Your task to perform on an android device: open wifi settings Image 0: 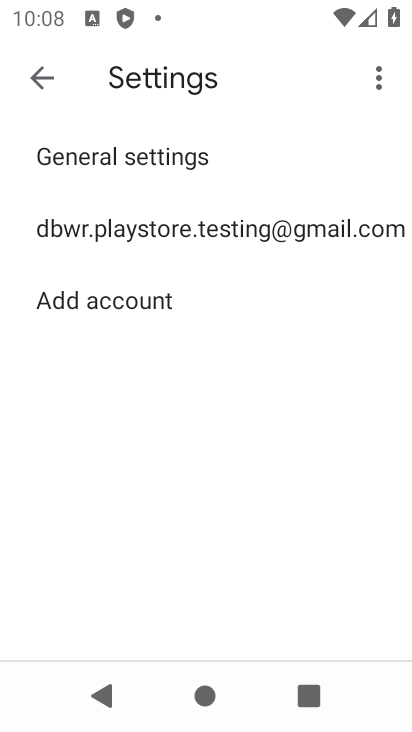
Step 0: press home button
Your task to perform on an android device: open wifi settings Image 1: 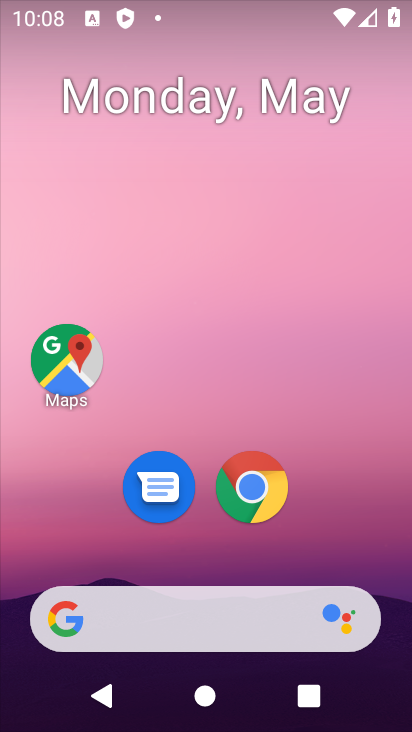
Step 1: drag from (229, 515) to (260, 139)
Your task to perform on an android device: open wifi settings Image 2: 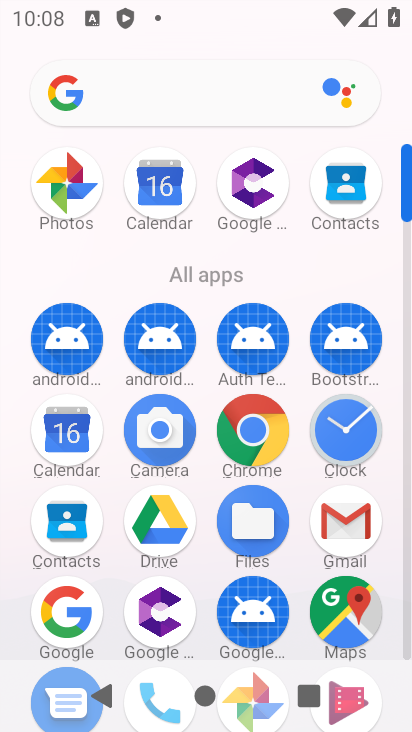
Step 2: drag from (173, 463) to (215, 179)
Your task to perform on an android device: open wifi settings Image 3: 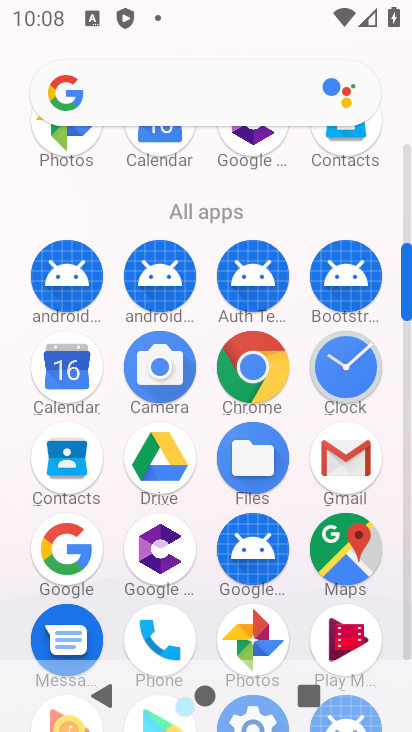
Step 3: drag from (174, 545) to (206, 113)
Your task to perform on an android device: open wifi settings Image 4: 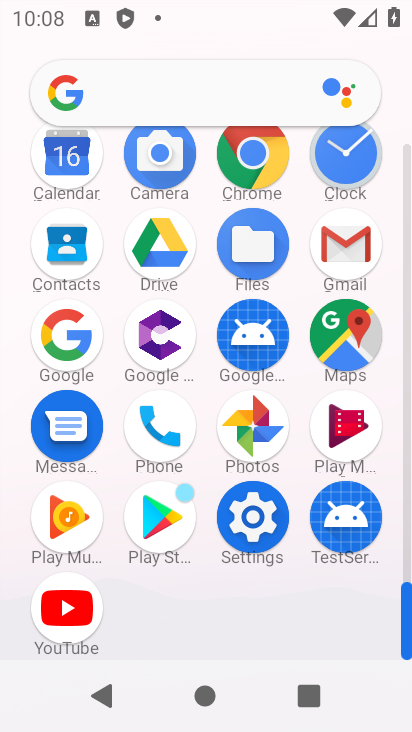
Step 4: click (254, 528)
Your task to perform on an android device: open wifi settings Image 5: 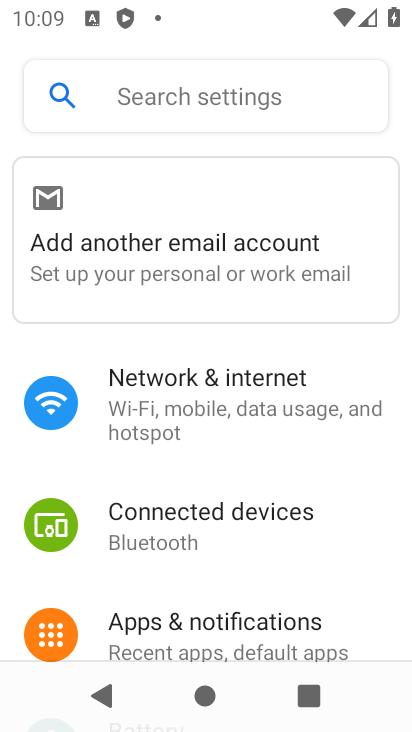
Step 5: click (255, 412)
Your task to perform on an android device: open wifi settings Image 6: 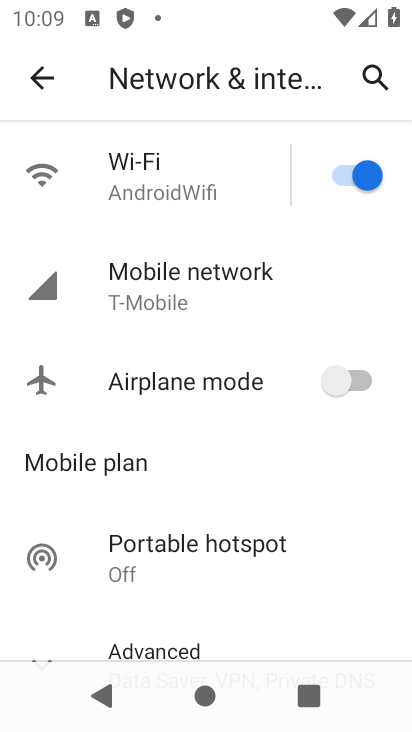
Step 6: click (137, 183)
Your task to perform on an android device: open wifi settings Image 7: 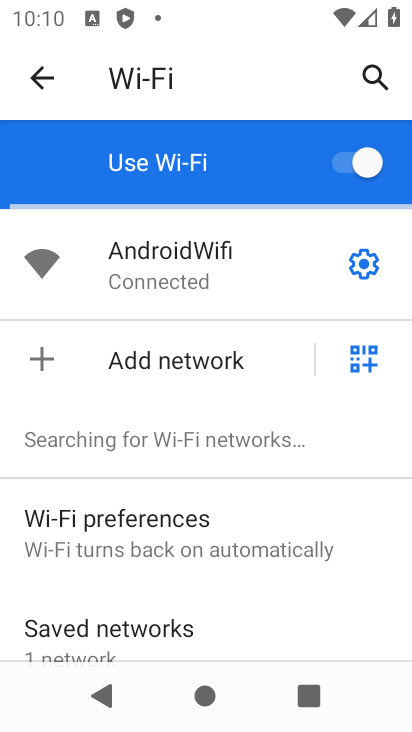
Step 7: click (359, 268)
Your task to perform on an android device: open wifi settings Image 8: 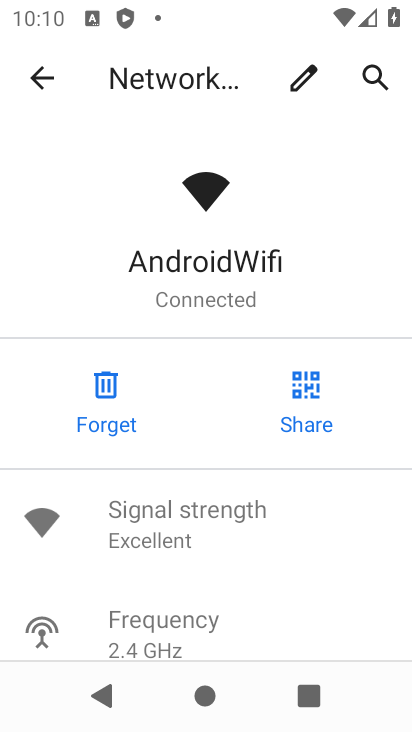
Step 8: task complete